Your task to perform on an android device: Show me popular videos on Youtube Image 0: 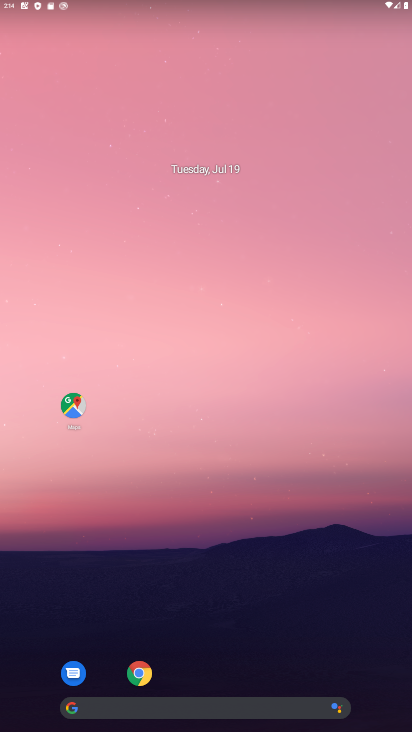
Step 0: drag from (217, 713) to (326, 283)
Your task to perform on an android device: Show me popular videos on Youtube Image 1: 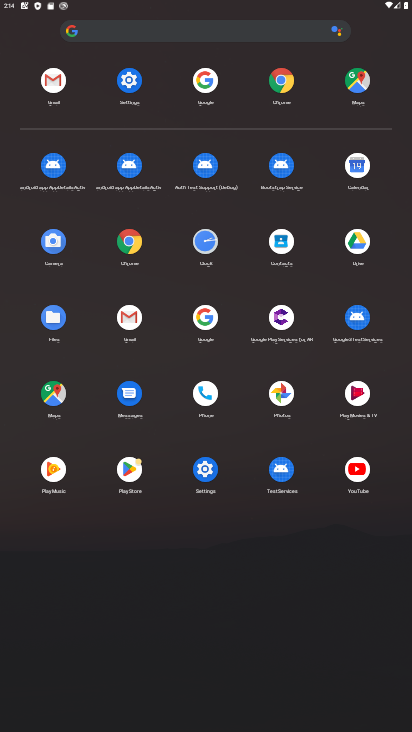
Step 1: click (353, 467)
Your task to perform on an android device: Show me popular videos on Youtube Image 2: 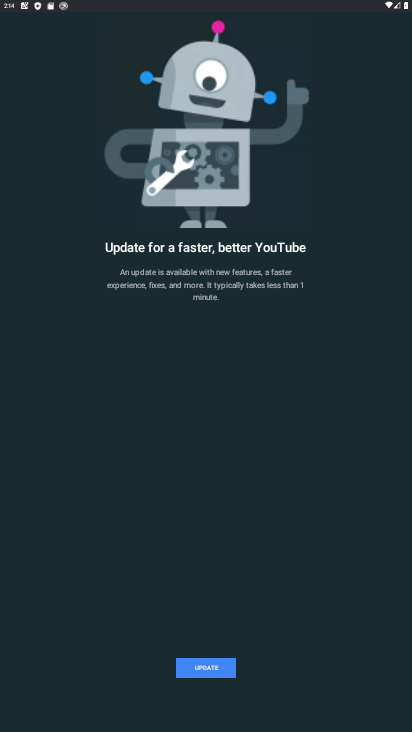
Step 2: click (206, 669)
Your task to perform on an android device: Show me popular videos on Youtube Image 3: 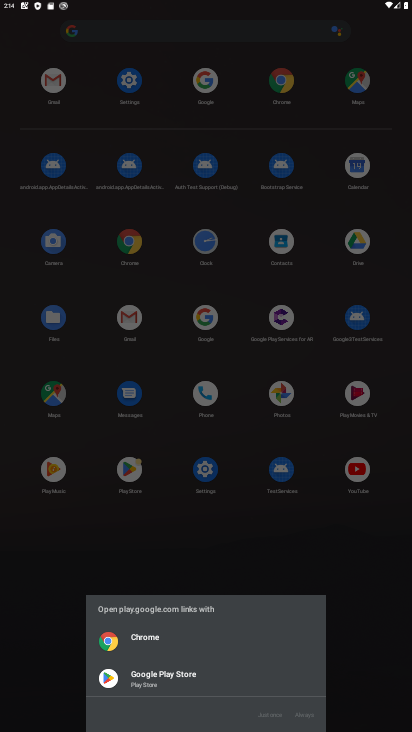
Step 3: click (183, 679)
Your task to perform on an android device: Show me popular videos on Youtube Image 4: 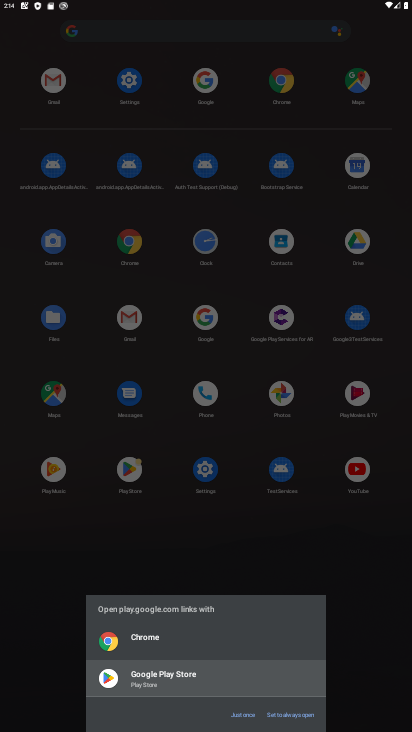
Step 4: click (236, 718)
Your task to perform on an android device: Show me popular videos on Youtube Image 5: 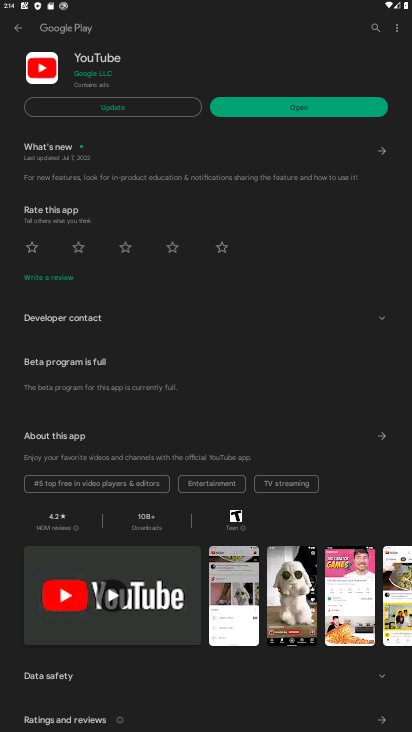
Step 5: click (116, 110)
Your task to perform on an android device: Show me popular videos on Youtube Image 6: 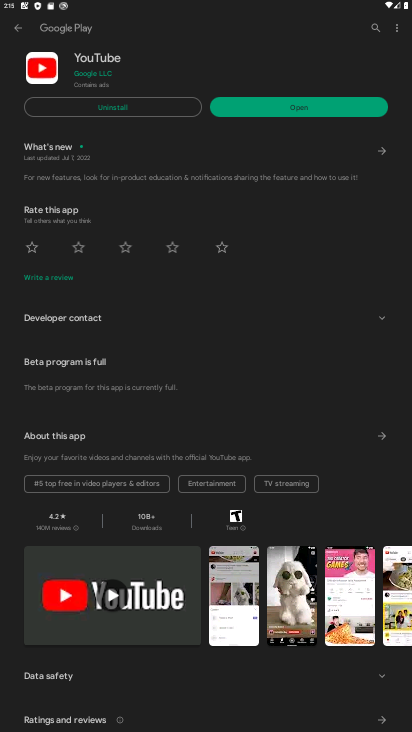
Step 6: click (293, 110)
Your task to perform on an android device: Show me popular videos on Youtube Image 7: 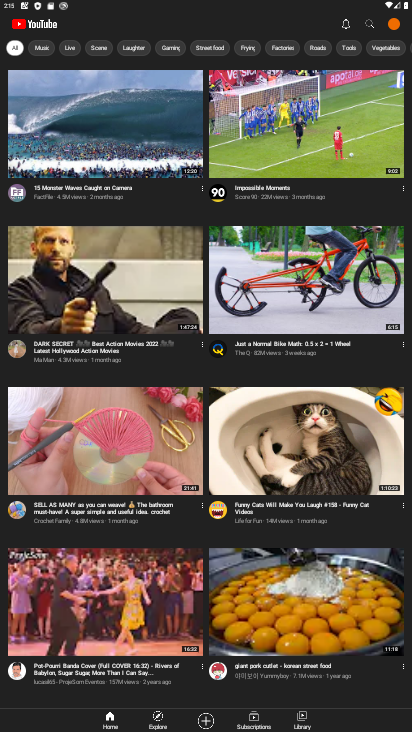
Step 7: click (369, 24)
Your task to perform on an android device: Show me popular videos on Youtube Image 8: 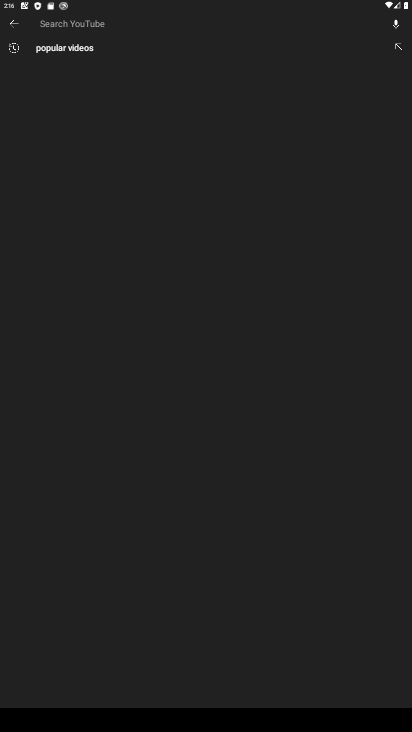
Step 8: click (88, 53)
Your task to perform on an android device: Show me popular videos on Youtube Image 9: 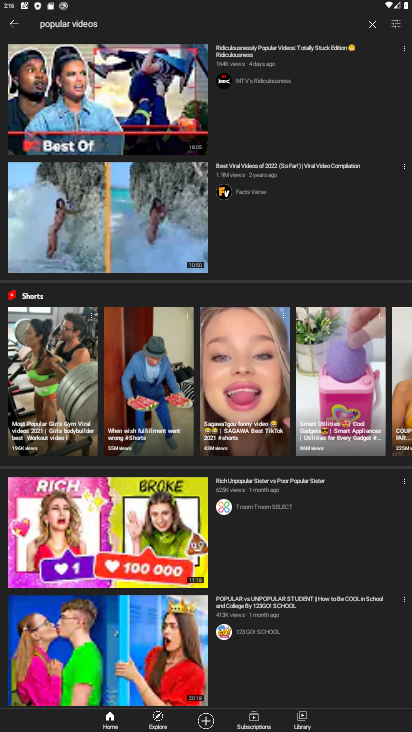
Step 9: task complete